Your task to perform on an android device: open app "Google Drive" Image 0: 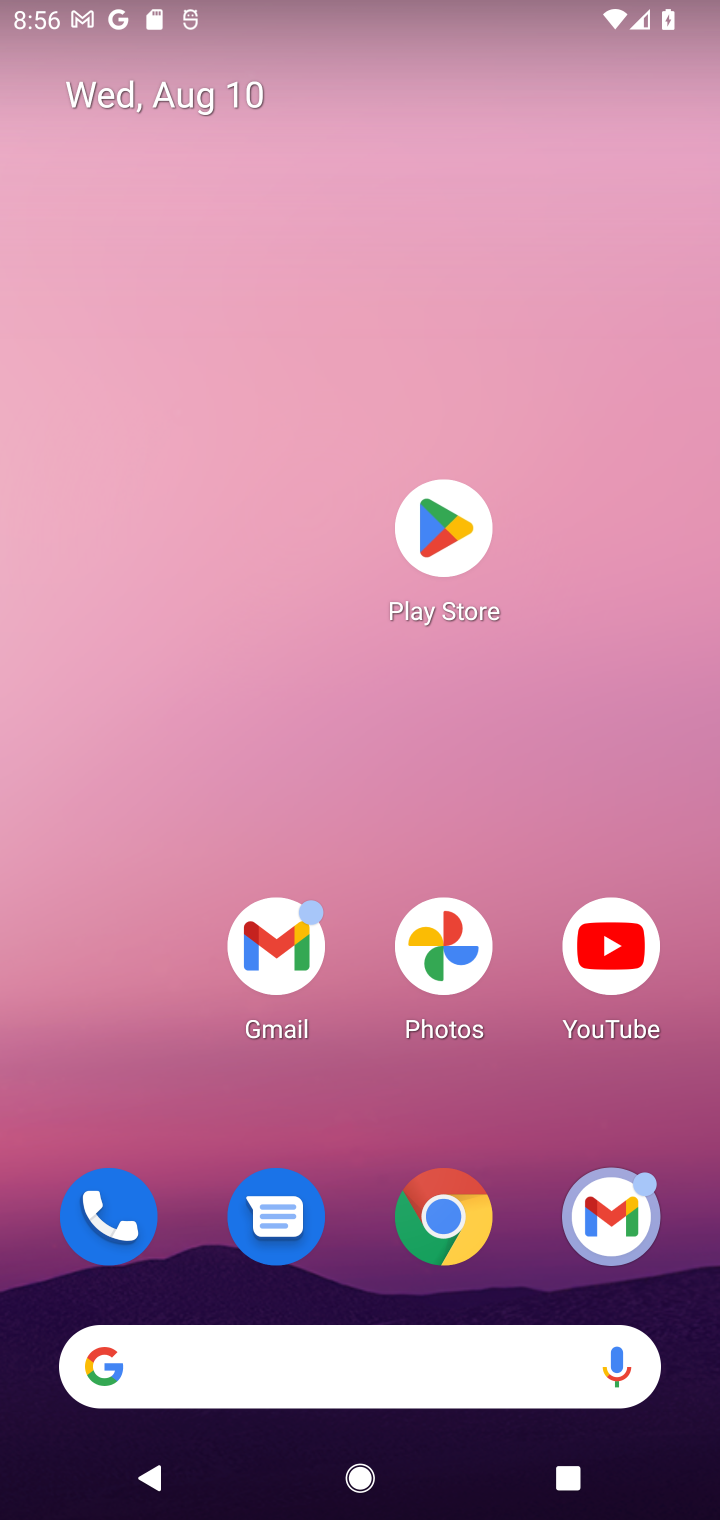
Step 0: press home button
Your task to perform on an android device: open app "Google Drive" Image 1: 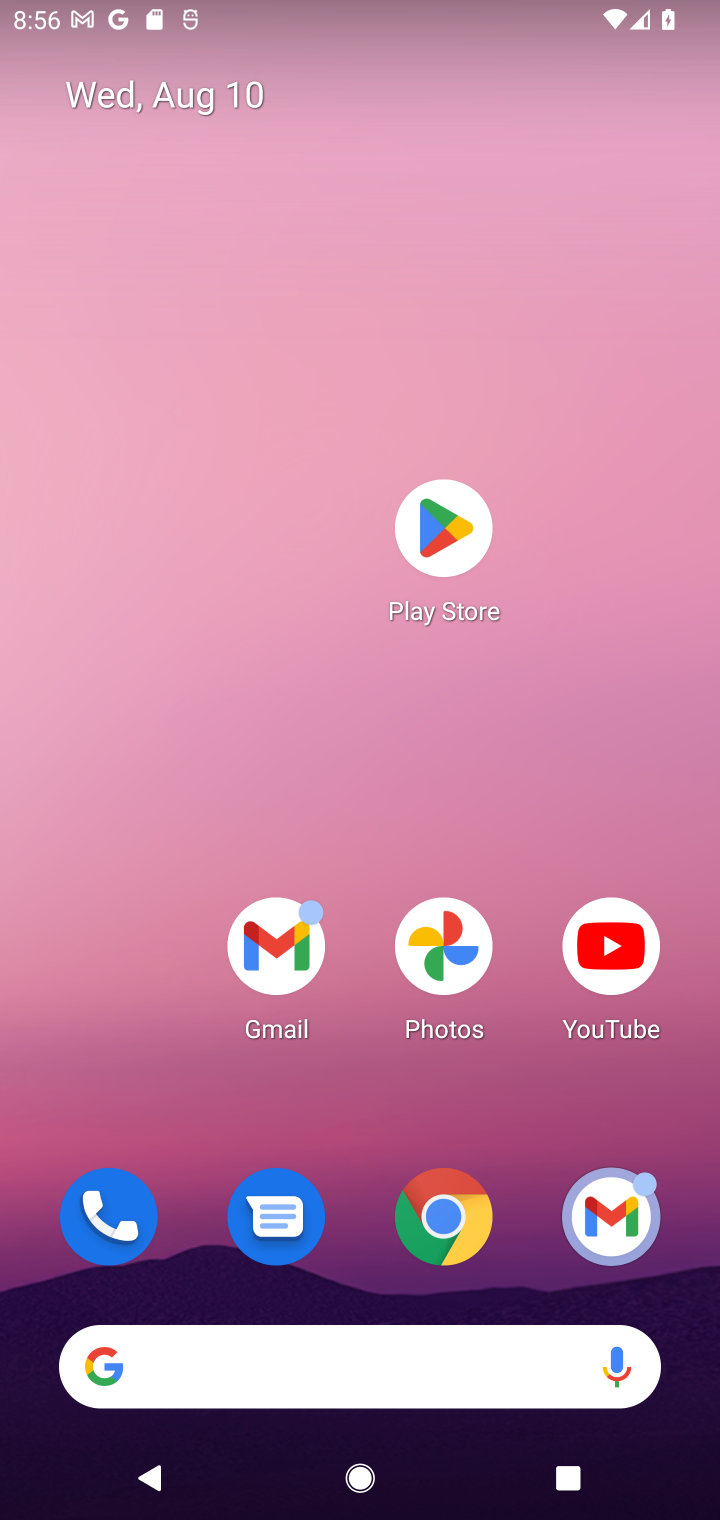
Step 1: click (451, 531)
Your task to perform on an android device: open app "Google Drive" Image 2: 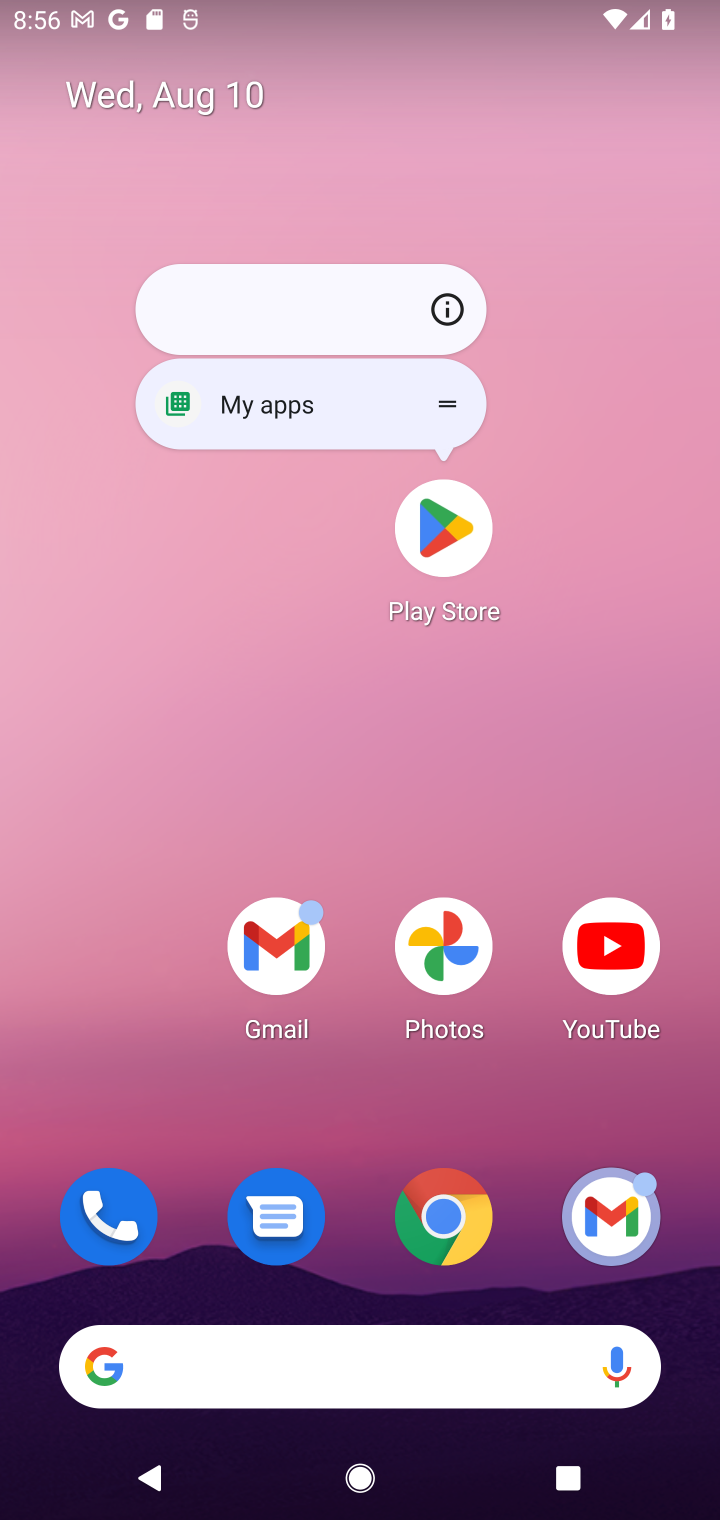
Step 2: click (453, 531)
Your task to perform on an android device: open app "Google Drive" Image 3: 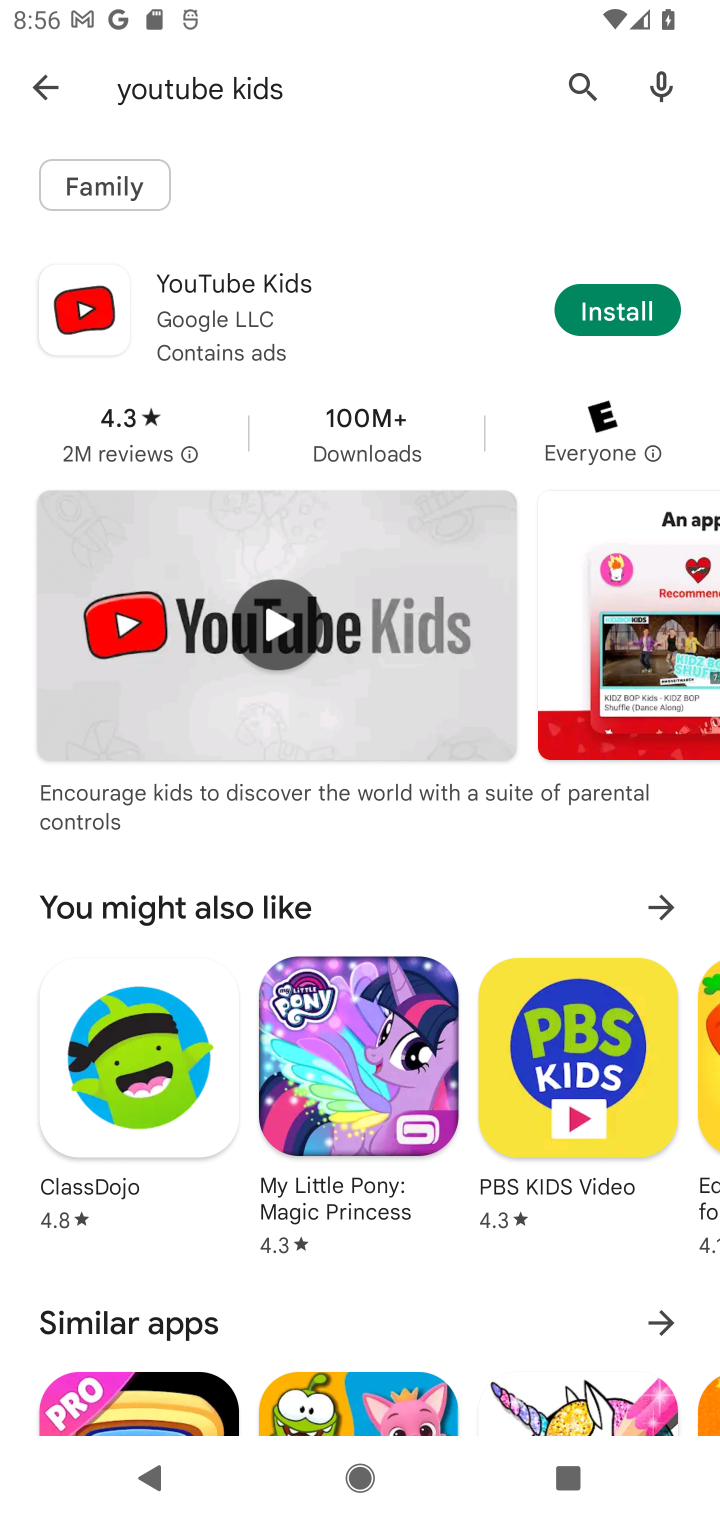
Step 3: click (572, 74)
Your task to perform on an android device: open app "Google Drive" Image 4: 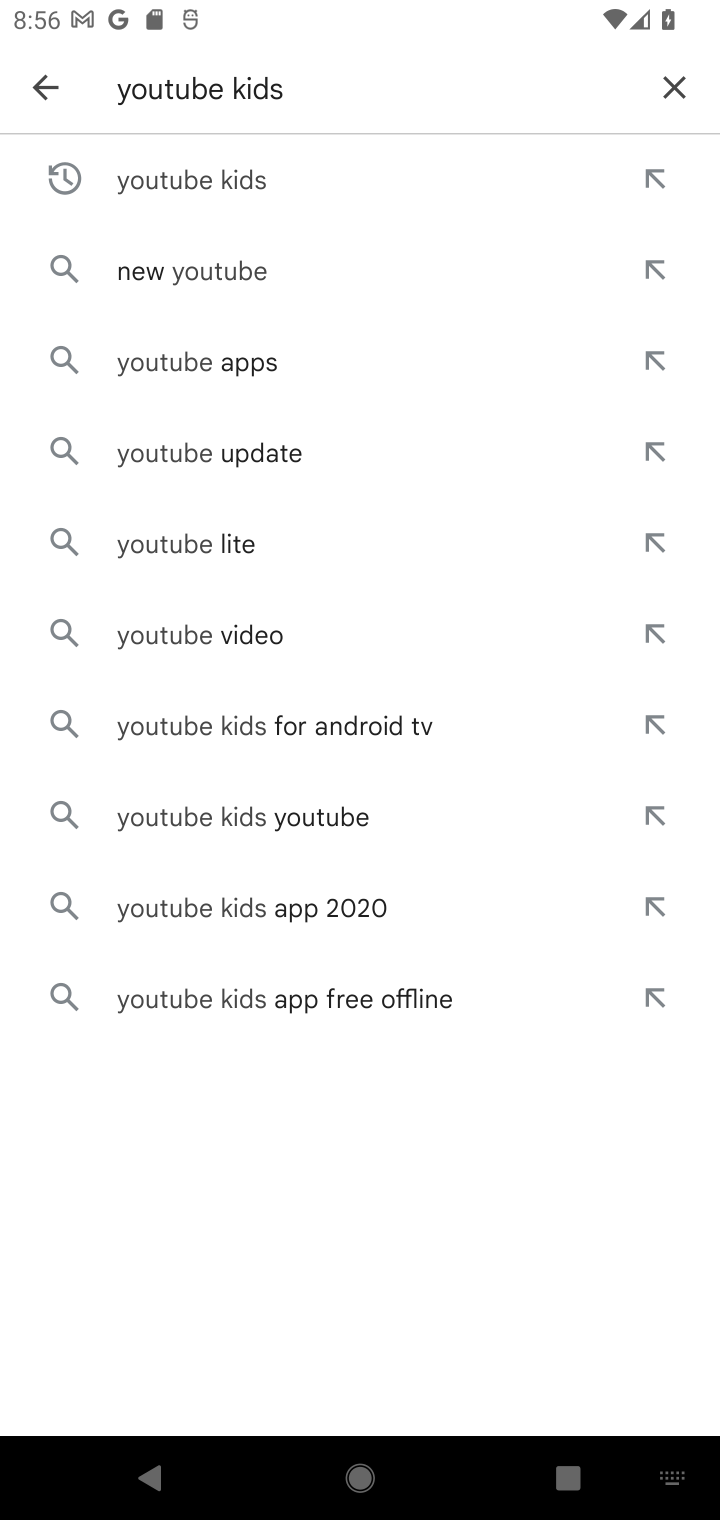
Step 4: click (673, 91)
Your task to perform on an android device: open app "Google Drive" Image 5: 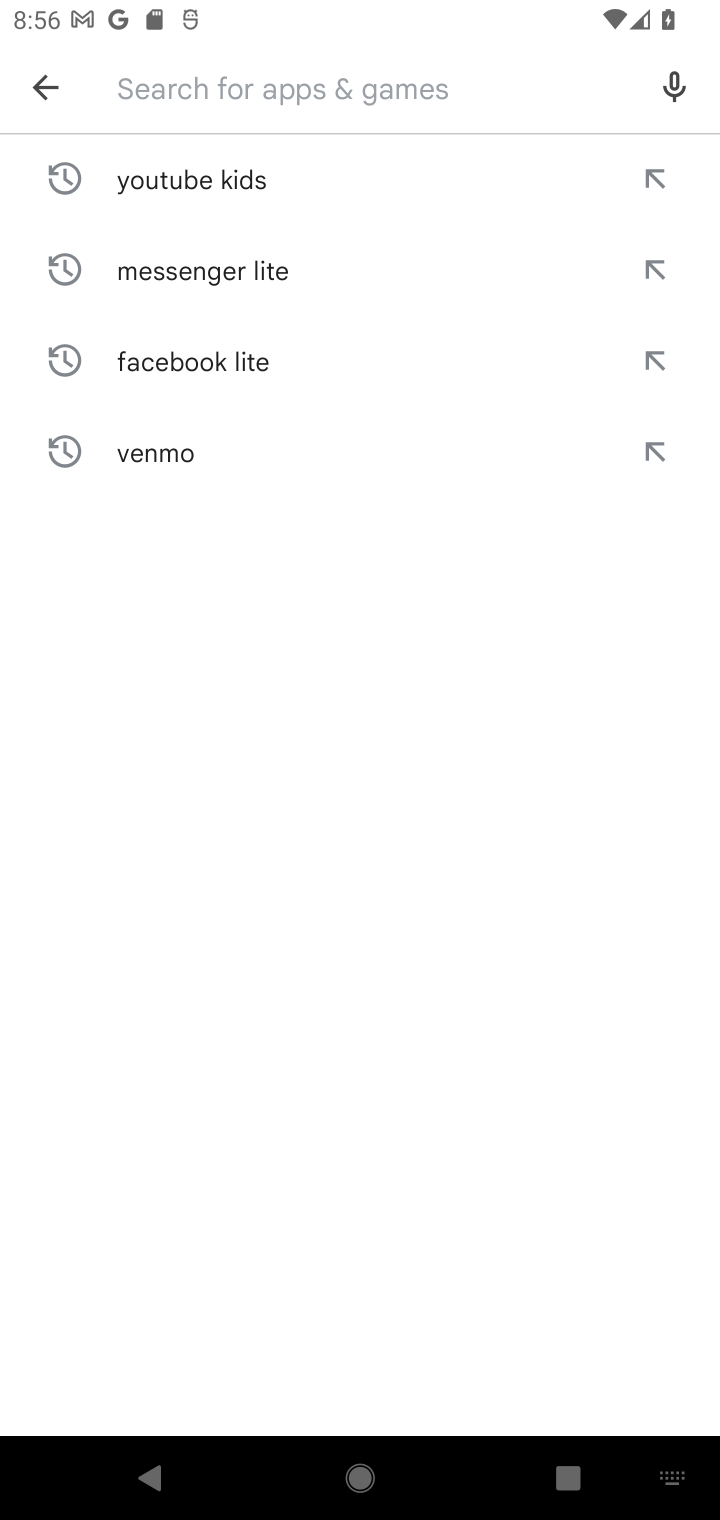
Step 5: type "Google Drive"
Your task to perform on an android device: open app "Google Drive" Image 6: 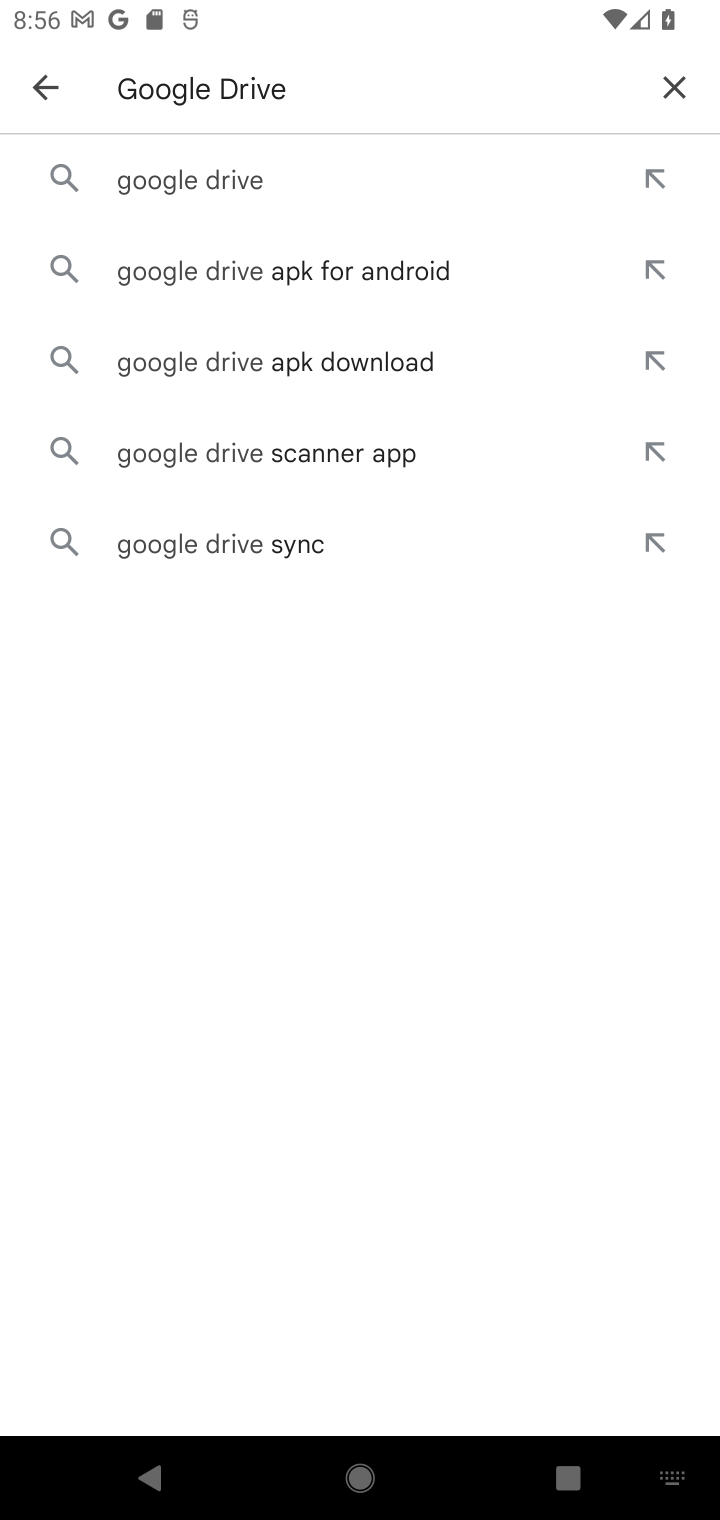
Step 6: click (233, 177)
Your task to perform on an android device: open app "Google Drive" Image 7: 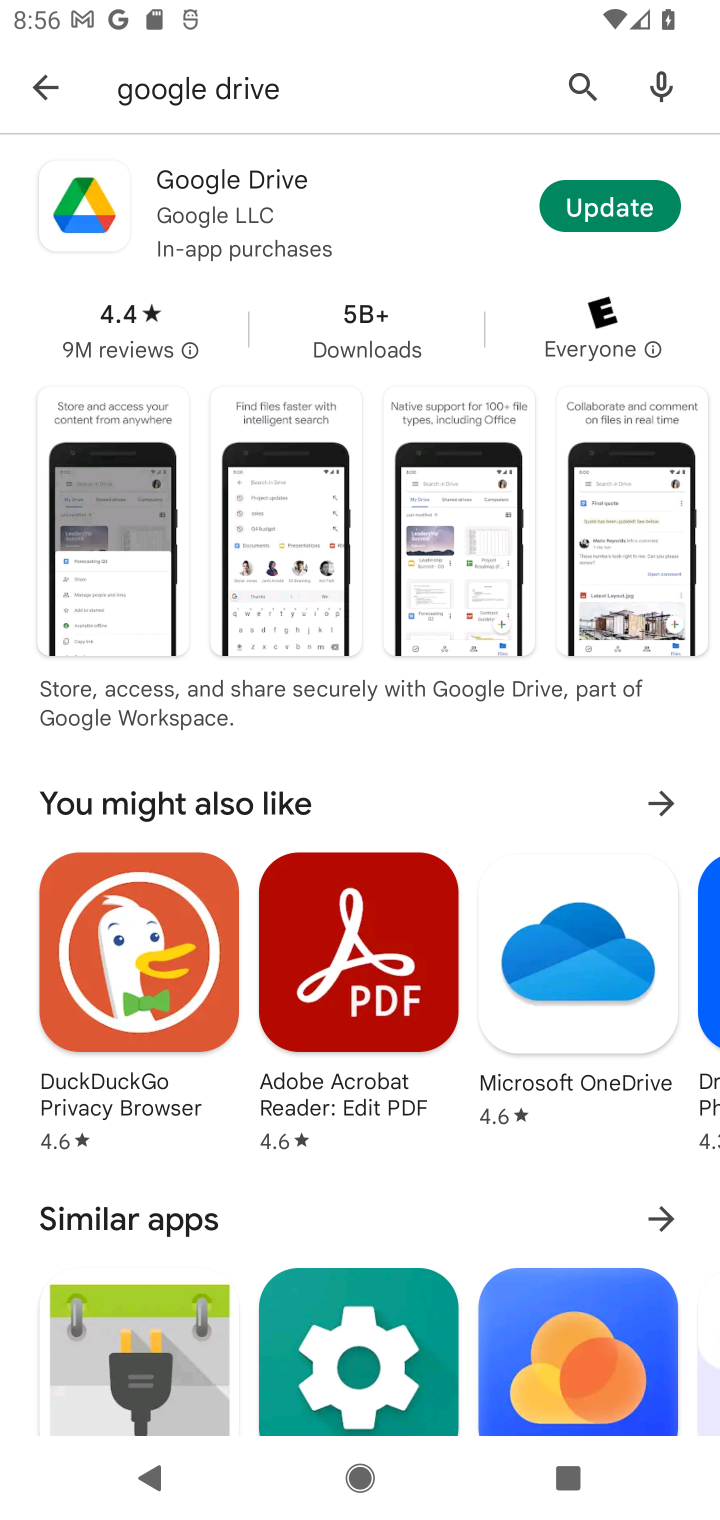
Step 7: click (234, 217)
Your task to perform on an android device: open app "Google Drive" Image 8: 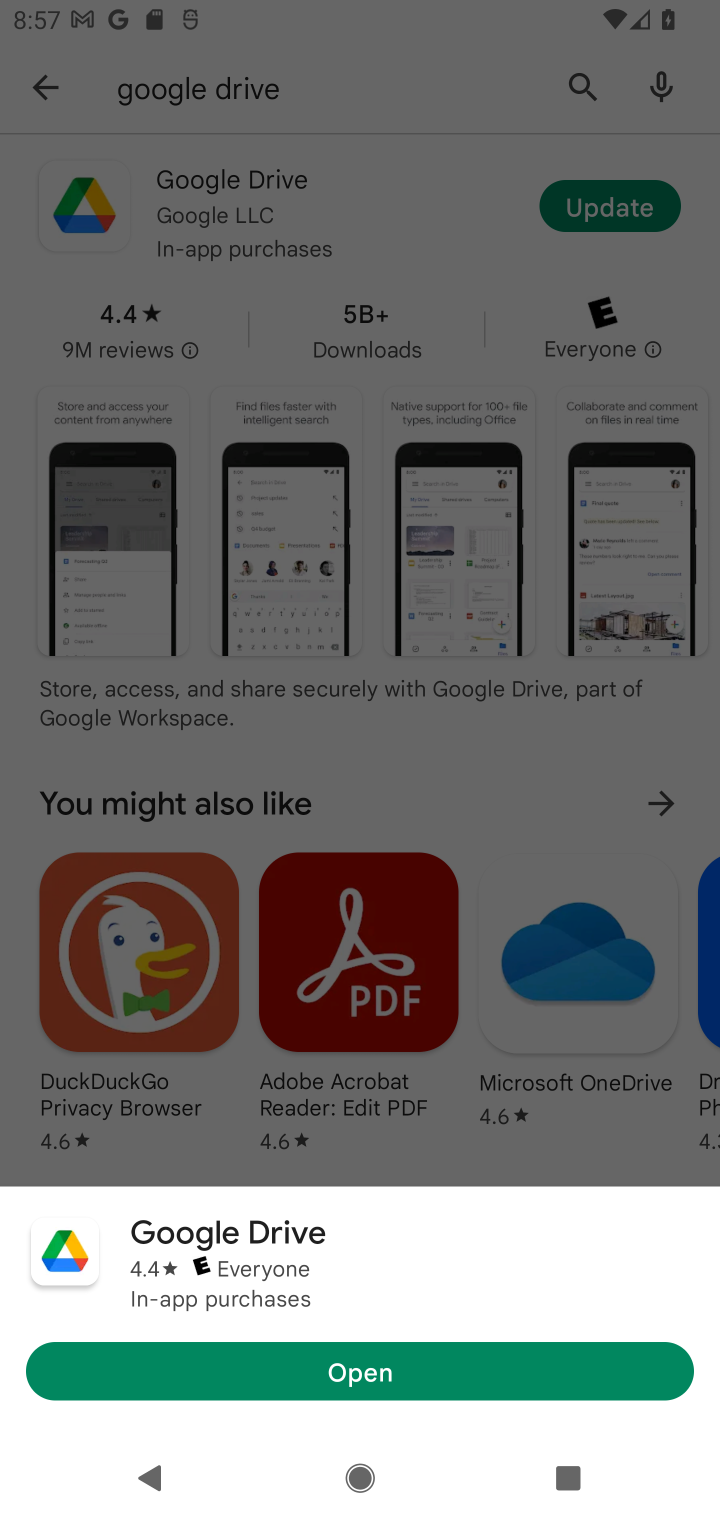
Step 8: click (396, 1379)
Your task to perform on an android device: open app "Google Drive" Image 9: 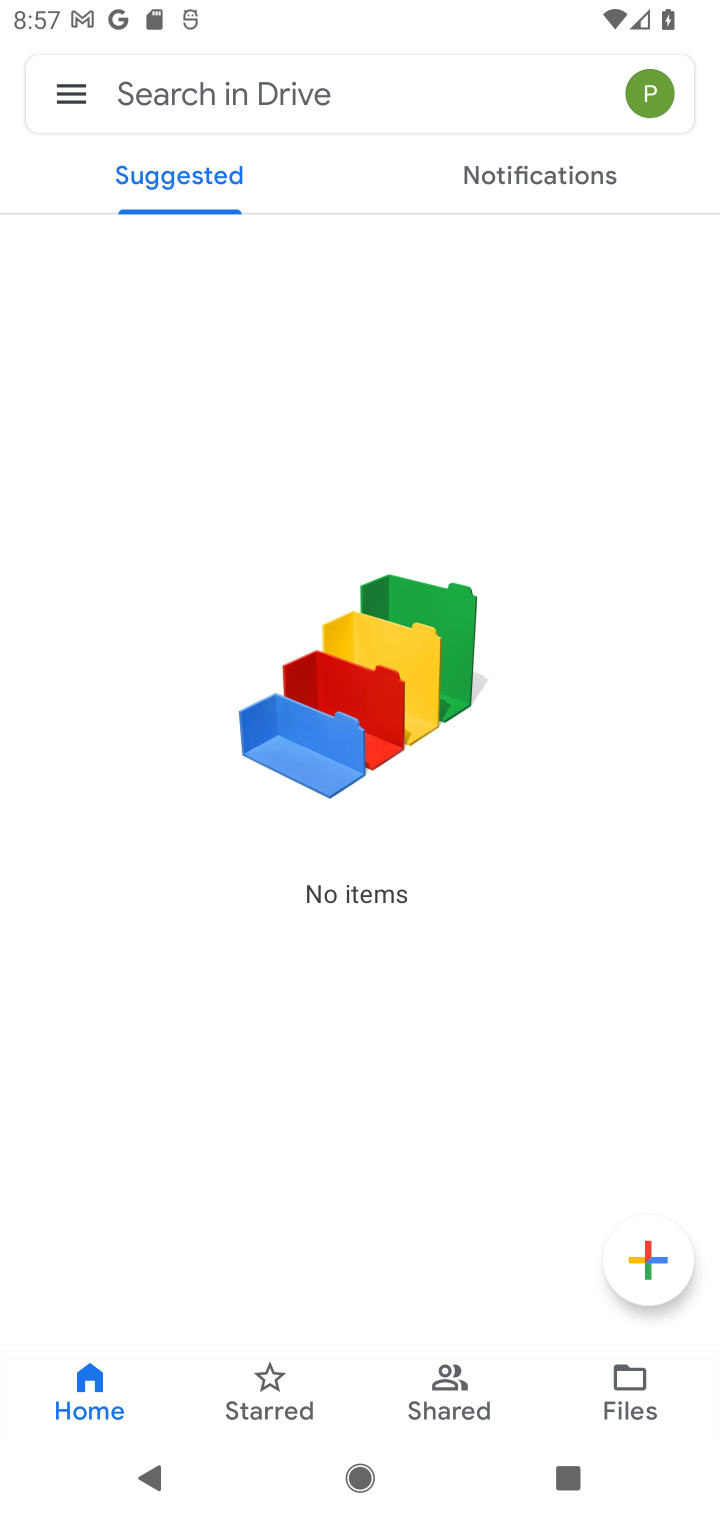
Step 9: task complete